Your task to perform on an android device: What's on my calendar today? Image 0: 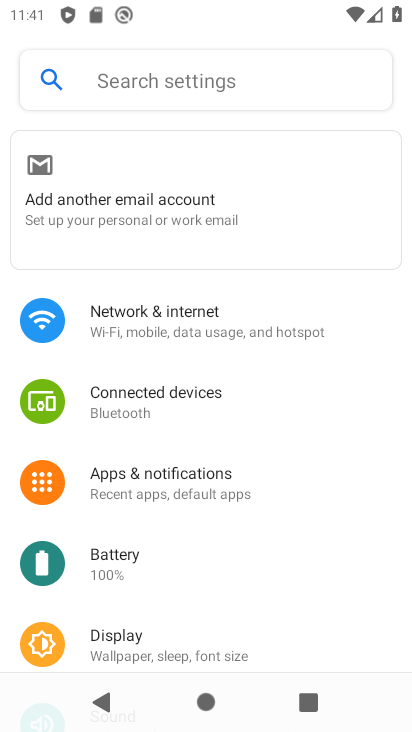
Step 0: press home button
Your task to perform on an android device: What's on my calendar today? Image 1: 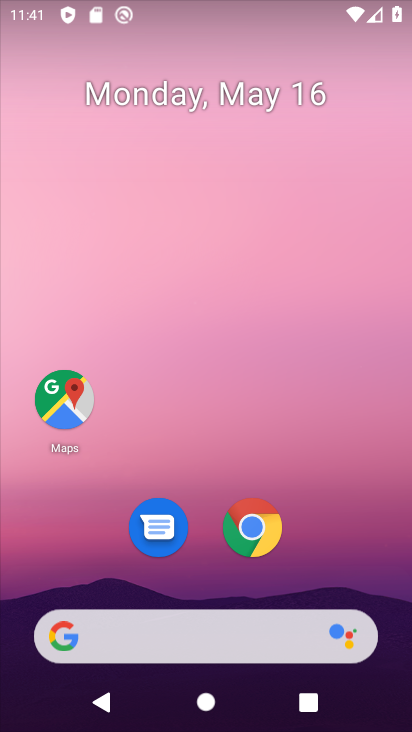
Step 1: drag from (334, 535) to (313, 64)
Your task to perform on an android device: What's on my calendar today? Image 2: 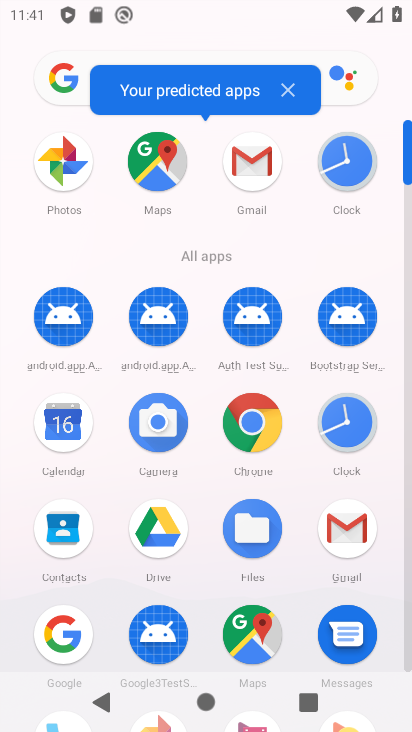
Step 2: click (50, 434)
Your task to perform on an android device: What's on my calendar today? Image 3: 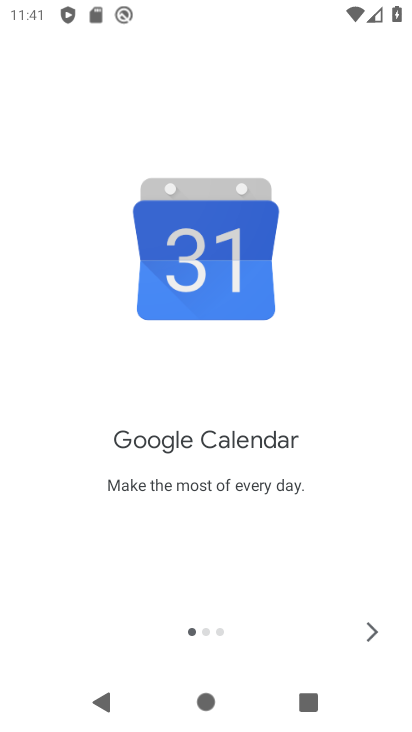
Step 3: click (364, 627)
Your task to perform on an android device: What's on my calendar today? Image 4: 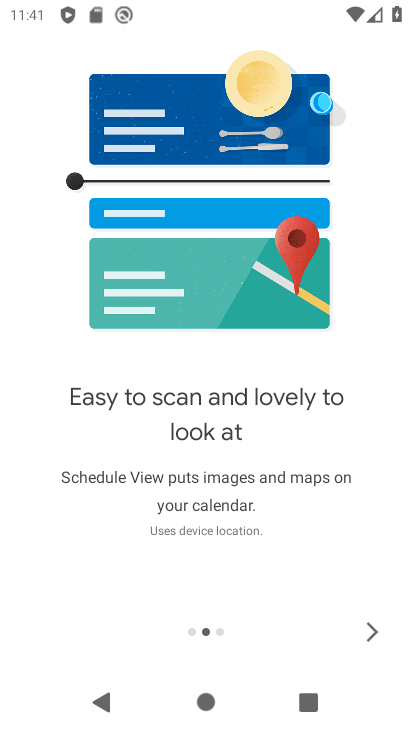
Step 4: click (366, 627)
Your task to perform on an android device: What's on my calendar today? Image 5: 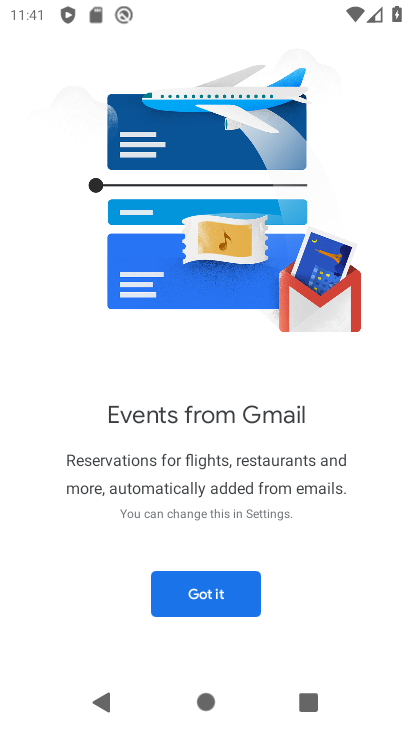
Step 5: click (366, 627)
Your task to perform on an android device: What's on my calendar today? Image 6: 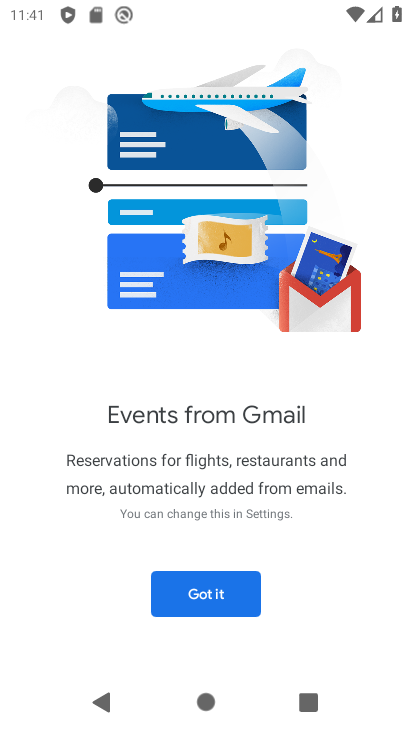
Step 6: click (168, 581)
Your task to perform on an android device: What's on my calendar today? Image 7: 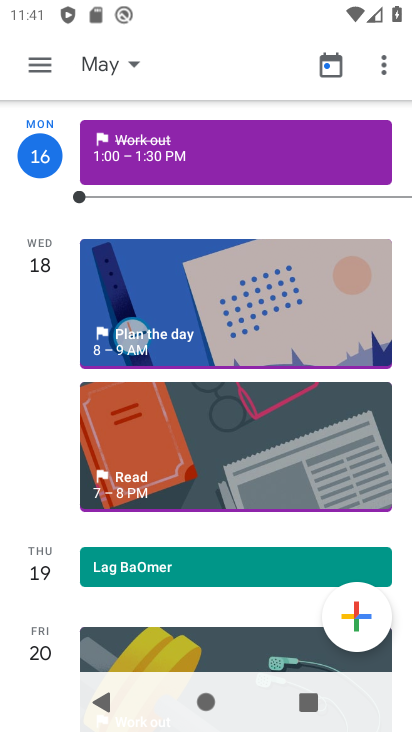
Step 7: click (87, 80)
Your task to perform on an android device: What's on my calendar today? Image 8: 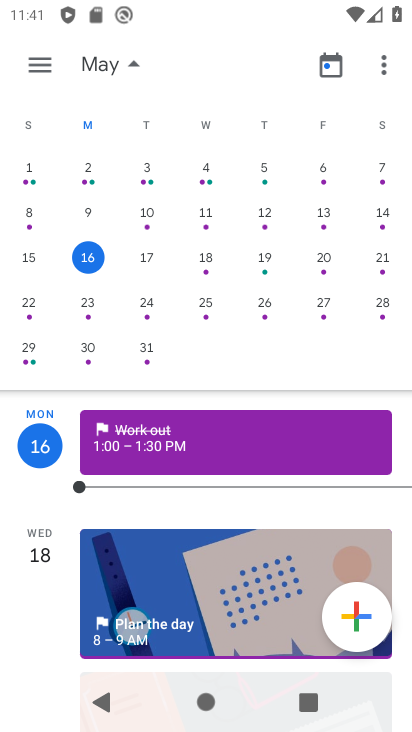
Step 8: click (90, 258)
Your task to perform on an android device: What's on my calendar today? Image 9: 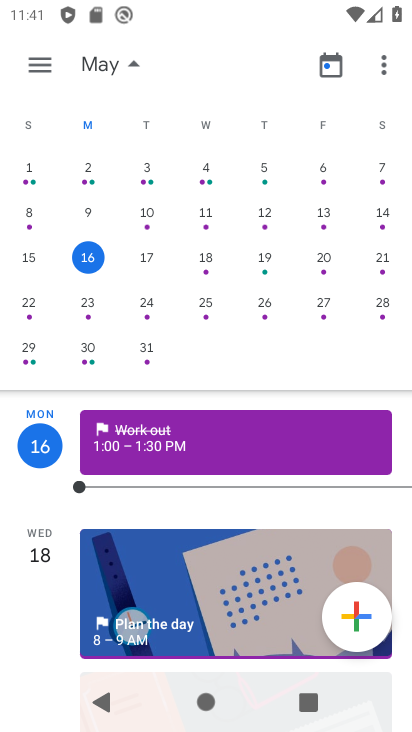
Step 9: task complete